Your task to perform on an android device: What's the weather going to be tomorrow? Image 0: 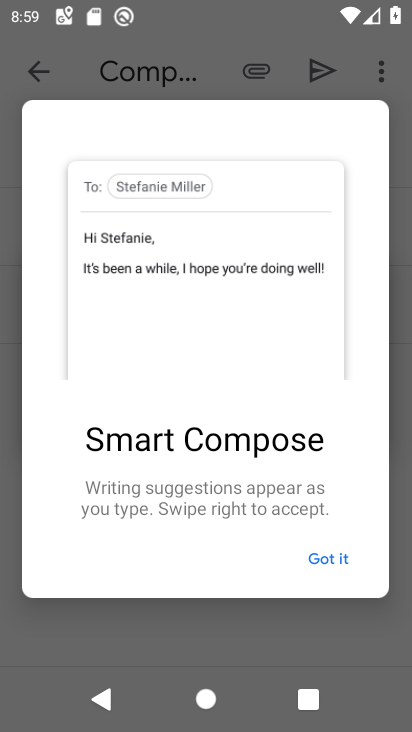
Step 0: press home button
Your task to perform on an android device: What's the weather going to be tomorrow? Image 1: 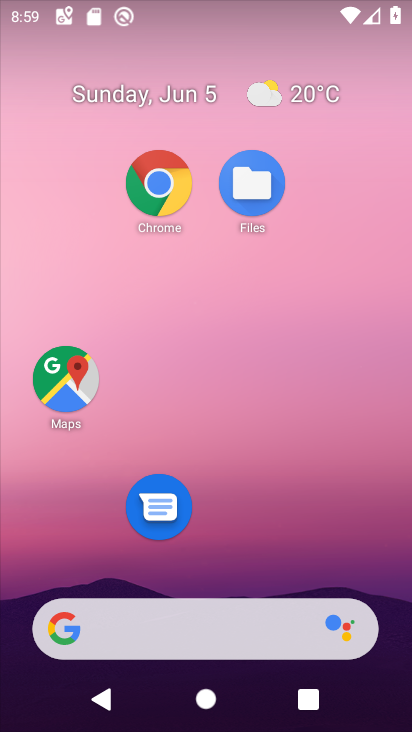
Step 1: click (200, 609)
Your task to perform on an android device: What's the weather going to be tomorrow? Image 2: 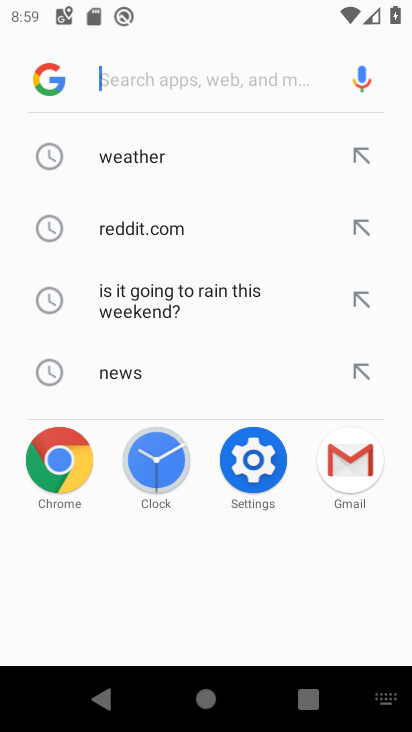
Step 2: click (148, 147)
Your task to perform on an android device: What's the weather going to be tomorrow? Image 3: 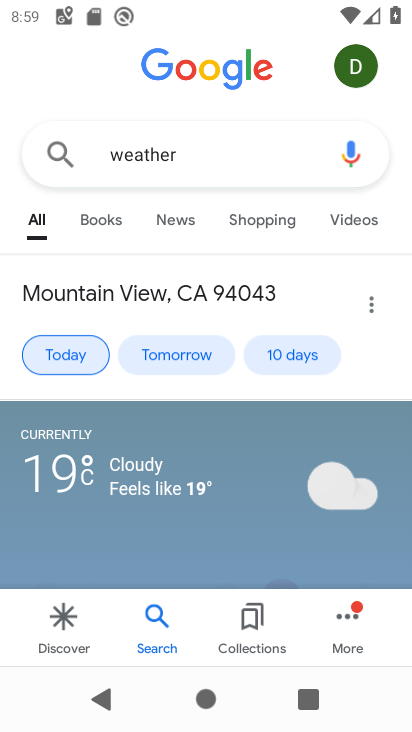
Step 3: click (177, 342)
Your task to perform on an android device: What's the weather going to be tomorrow? Image 4: 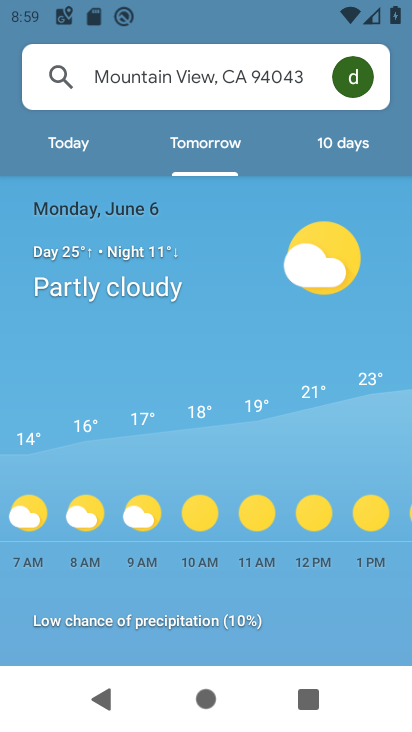
Step 4: task complete